Your task to perform on an android device: change alarm snooze length Image 0: 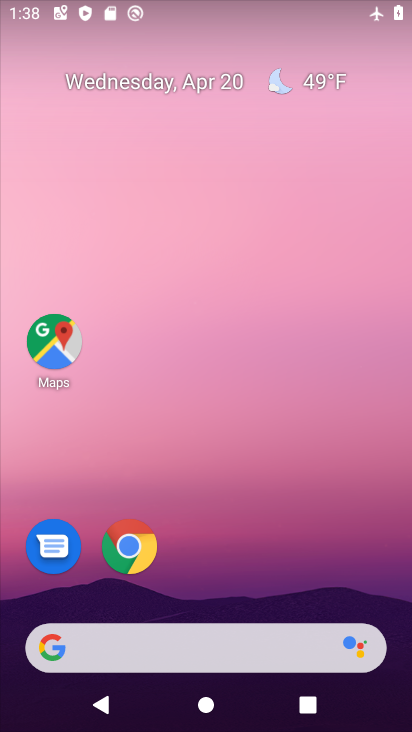
Step 0: click (258, 177)
Your task to perform on an android device: change alarm snooze length Image 1: 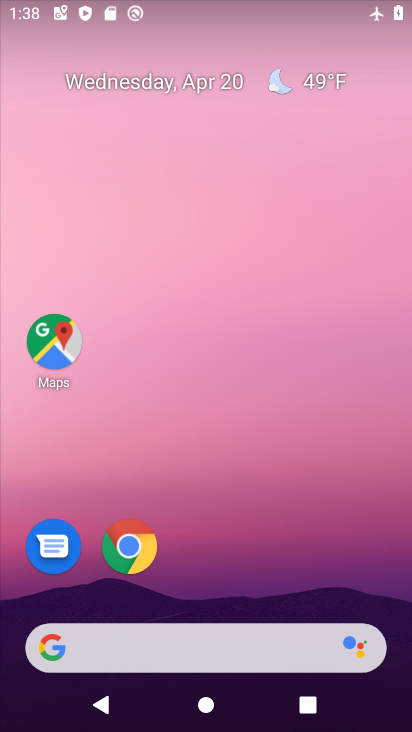
Step 1: drag from (252, 545) to (303, 190)
Your task to perform on an android device: change alarm snooze length Image 2: 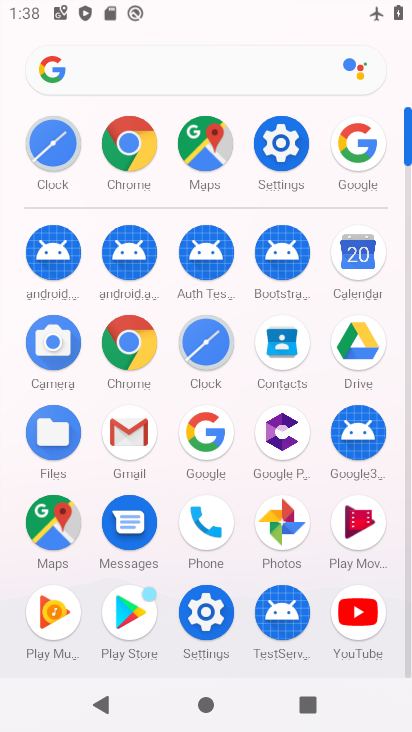
Step 2: click (201, 342)
Your task to perform on an android device: change alarm snooze length Image 3: 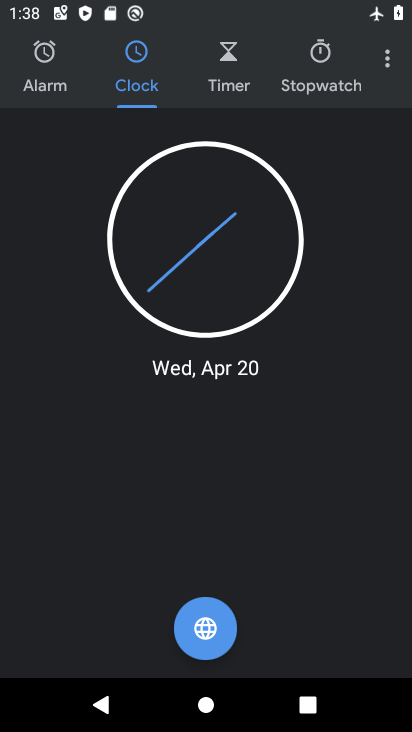
Step 3: click (378, 61)
Your task to perform on an android device: change alarm snooze length Image 4: 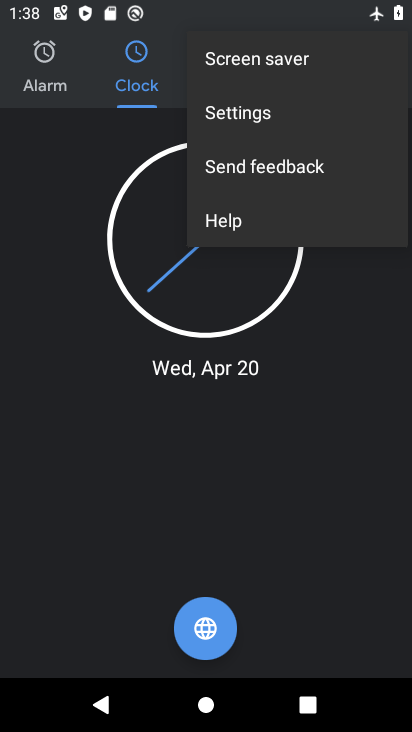
Step 4: click (287, 114)
Your task to perform on an android device: change alarm snooze length Image 5: 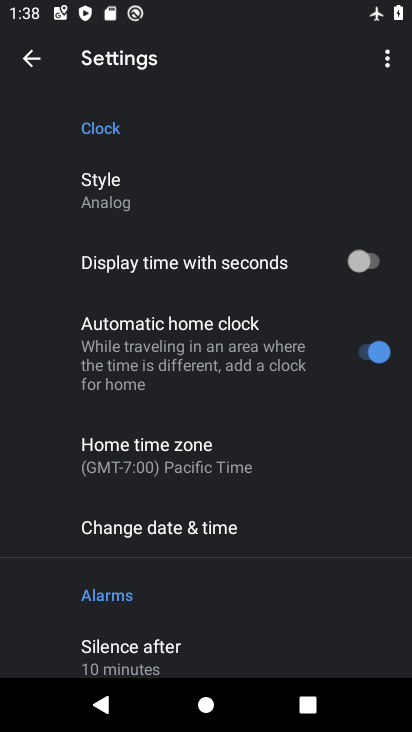
Step 5: drag from (277, 543) to (295, 68)
Your task to perform on an android device: change alarm snooze length Image 6: 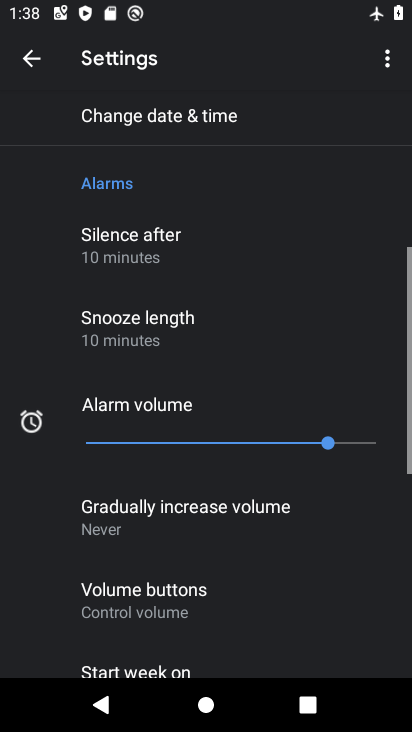
Step 6: drag from (278, 542) to (330, 128)
Your task to perform on an android device: change alarm snooze length Image 7: 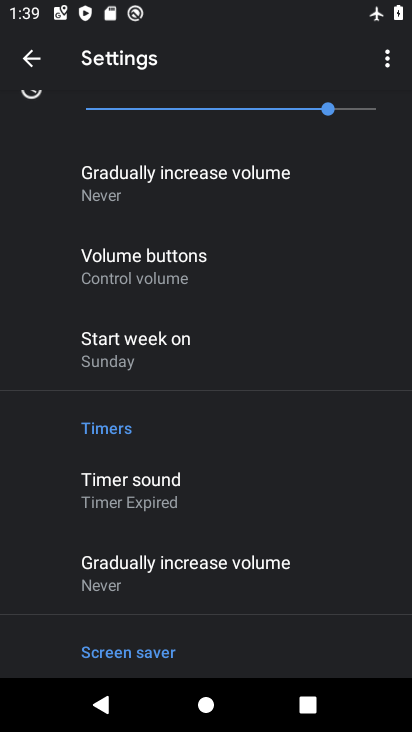
Step 7: drag from (221, 458) to (241, 148)
Your task to perform on an android device: change alarm snooze length Image 8: 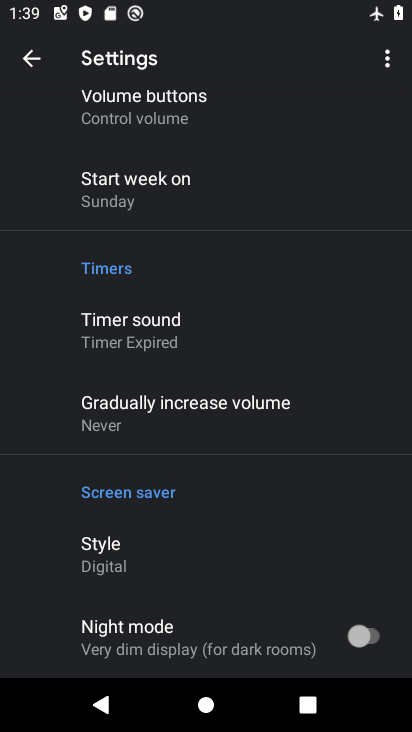
Step 8: drag from (192, 103) to (201, 639)
Your task to perform on an android device: change alarm snooze length Image 9: 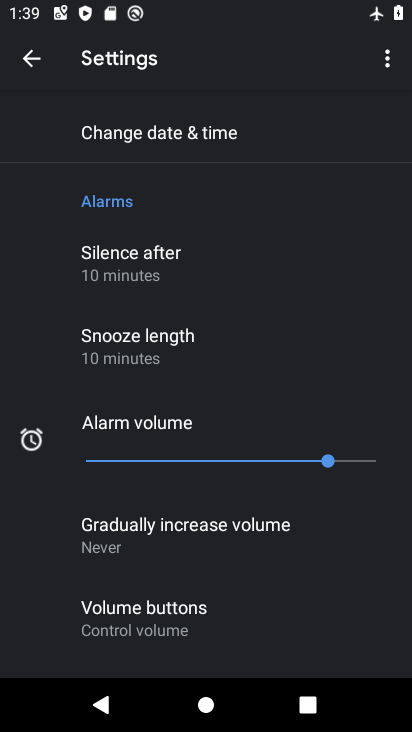
Step 9: click (168, 346)
Your task to perform on an android device: change alarm snooze length Image 10: 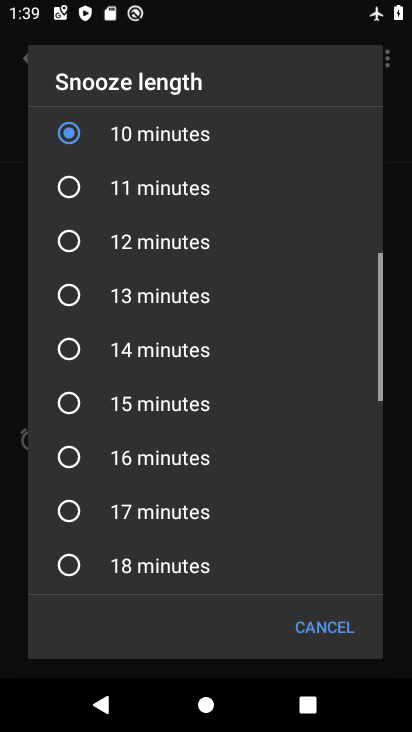
Step 10: drag from (220, 582) to (237, 418)
Your task to perform on an android device: change alarm snooze length Image 11: 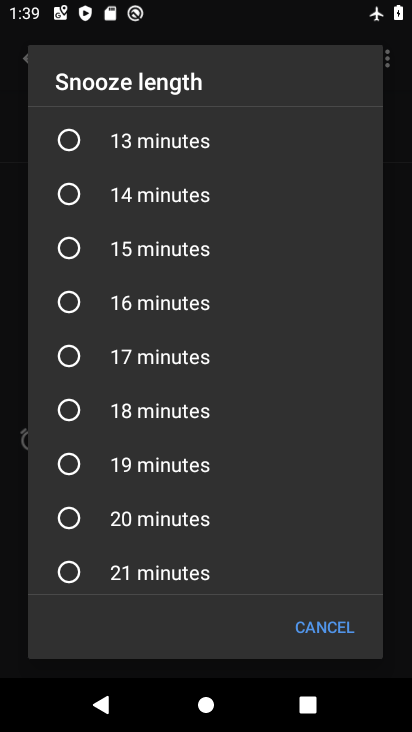
Step 11: click (148, 523)
Your task to perform on an android device: change alarm snooze length Image 12: 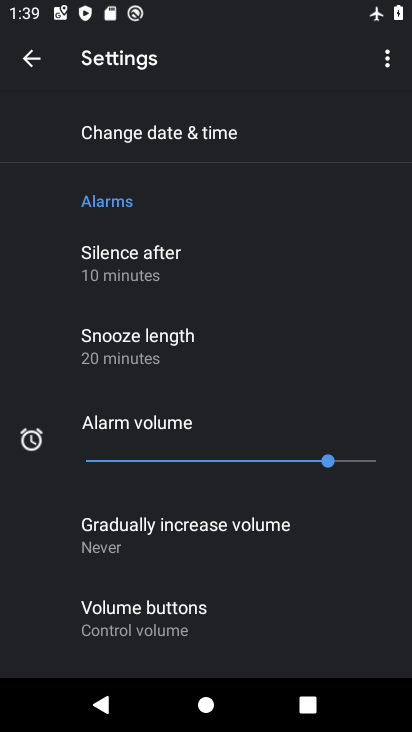
Step 12: task complete